Your task to perform on an android device: turn off picture-in-picture Image 0: 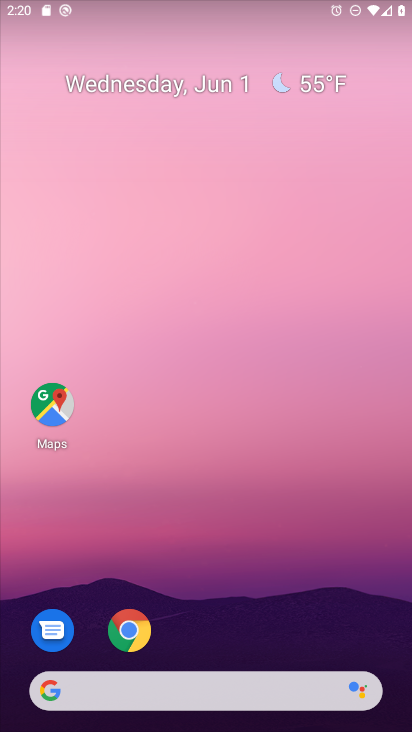
Step 0: drag from (47, 246) to (406, 155)
Your task to perform on an android device: turn off picture-in-picture Image 1: 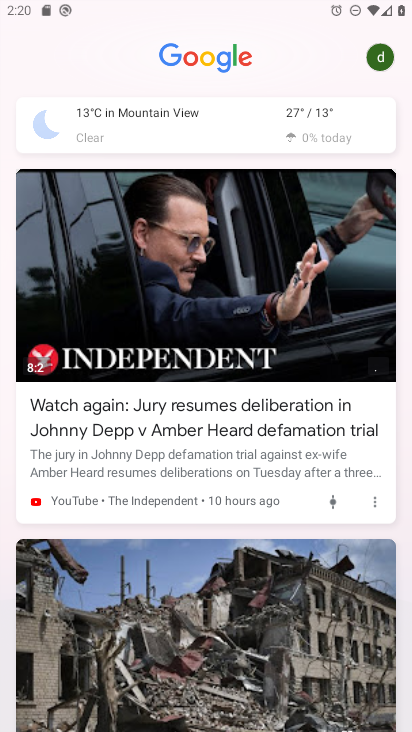
Step 1: press home button
Your task to perform on an android device: turn off picture-in-picture Image 2: 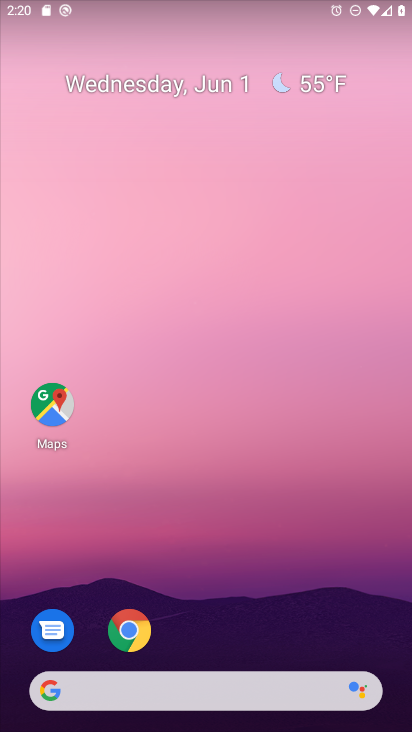
Step 2: drag from (228, 663) to (281, 39)
Your task to perform on an android device: turn off picture-in-picture Image 3: 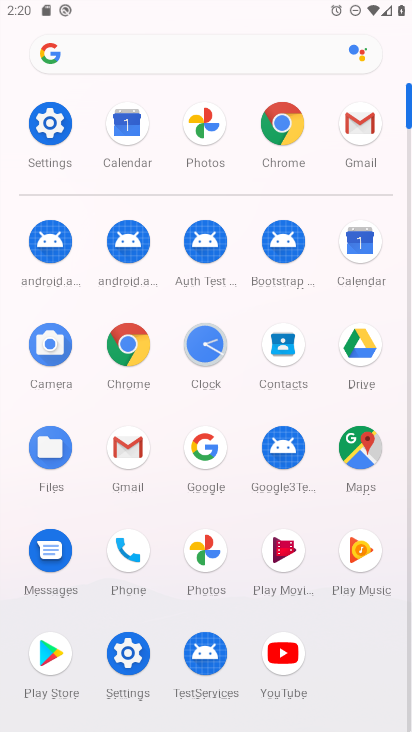
Step 3: click (50, 116)
Your task to perform on an android device: turn off picture-in-picture Image 4: 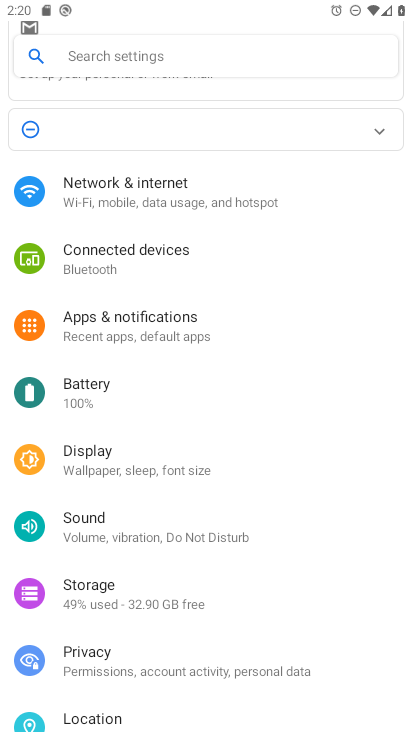
Step 4: drag from (109, 677) to (148, 568)
Your task to perform on an android device: turn off picture-in-picture Image 5: 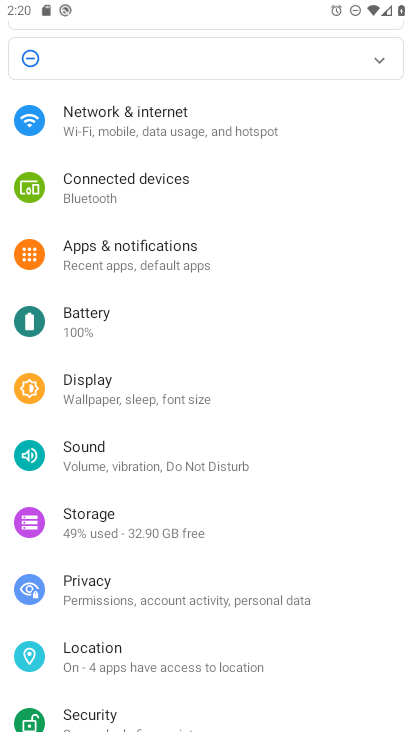
Step 5: click (166, 247)
Your task to perform on an android device: turn off picture-in-picture Image 6: 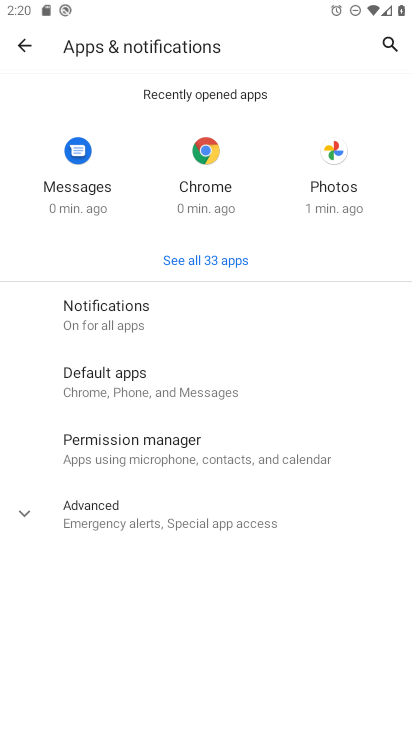
Step 6: click (132, 507)
Your task to perform on an android device: turn off picture-in-picture Image 7: 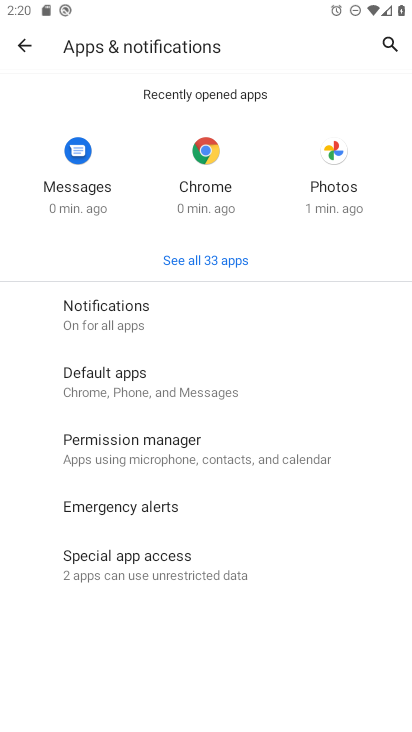
Step 7: click (128, 575)
Your task to perform on an android device: turn off picture-in-picture Image 8: 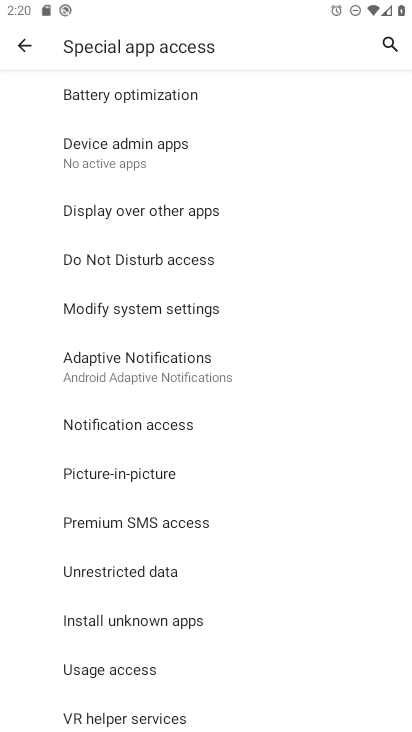
Step 8: click (138, 468)
Your task to perform on an android device: turn off picture-in-picture Image 9: 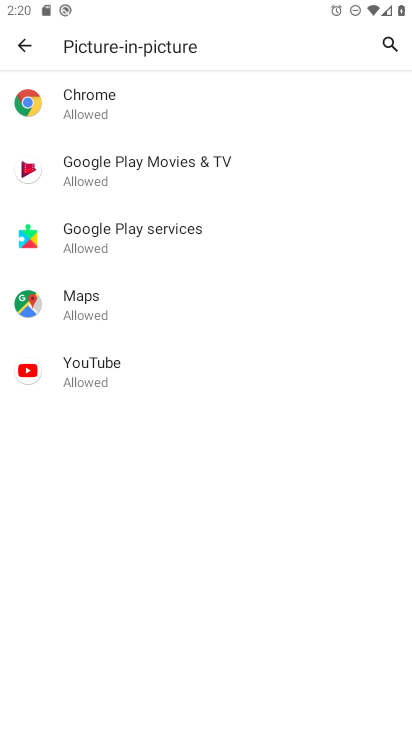
Step 9: click (75, 109)
Your task to perform on an android device: turn off picture-in-picture Image 10: 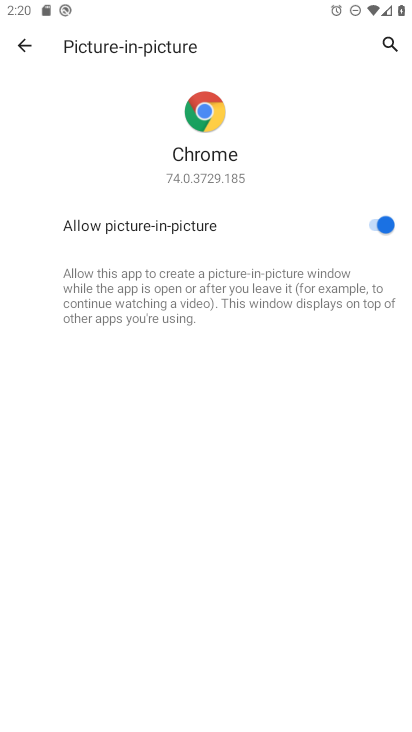
Step 10: click (369, 226)
Your task to perform on an android device: turn off picture-in-picture Image 11: 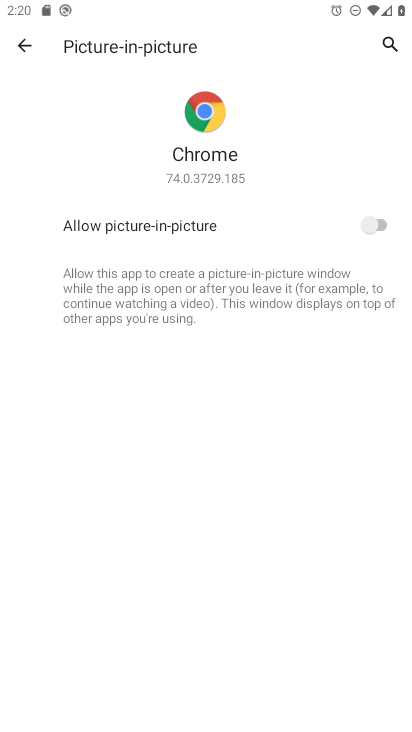
Step 11: press back button
Your task to perform on an android device: turn off picture-in-picture Image 12: 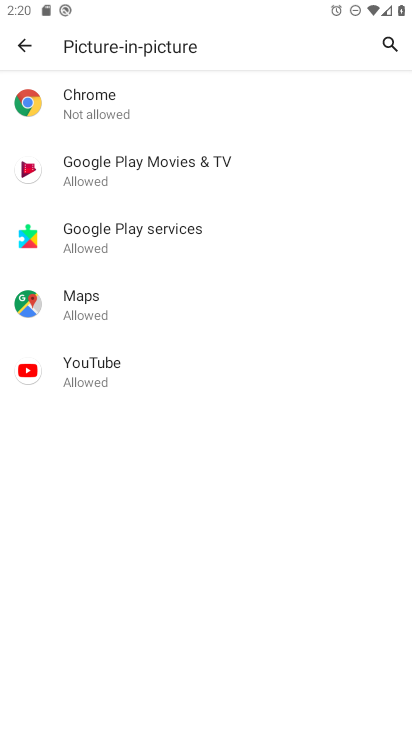
Step 12: click (116, 185)
Your task to perform on an android device: turn off picture-in-picture Image 13: 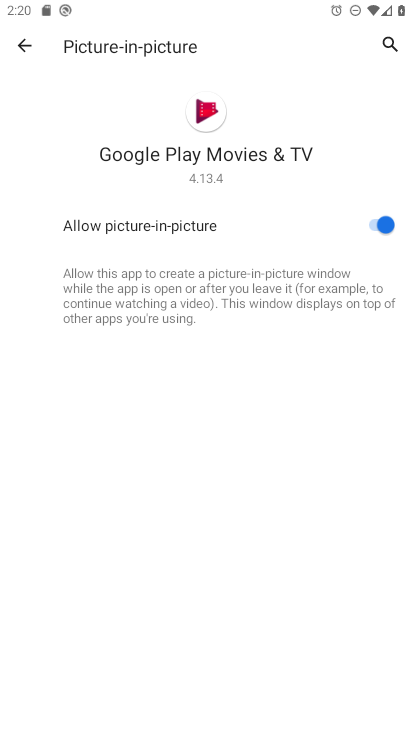
Step 13: click (385, 223)
Your task to perform on an android device: turn off picture-in-picture Image 14: 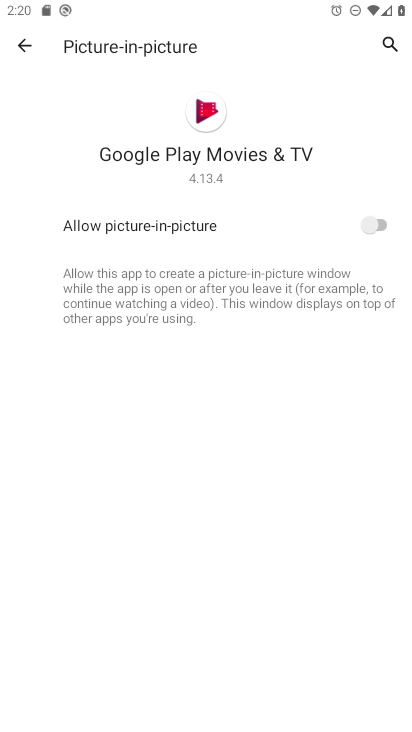
Step 14: press back button
Your task to perform on an android device: turn off picture-in-picture Image 15: 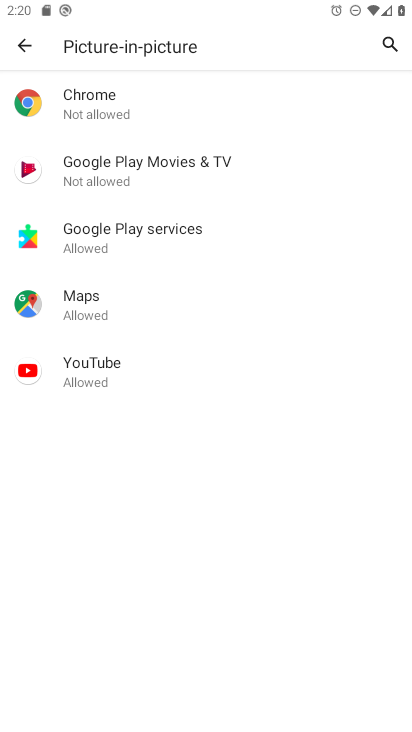
Step 15: click (169, 235)
Your task to perform on an android device: turn off picture-in-picture Image 16: 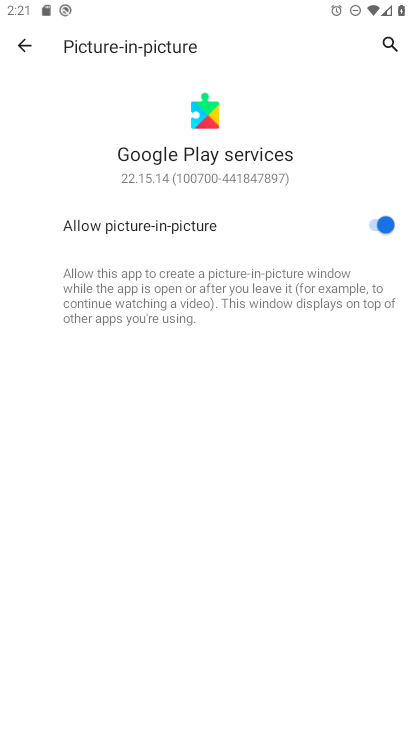
Step 16: click (384, 230)
Your task to perform on an android device: turn off picture-in-picture Image 17: 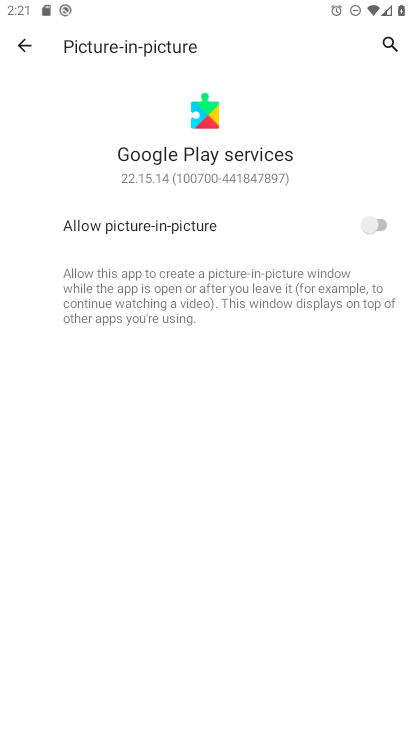
Step 17: press back button
Your task to perform on an android device: turn off picture-in-picture Image 18: 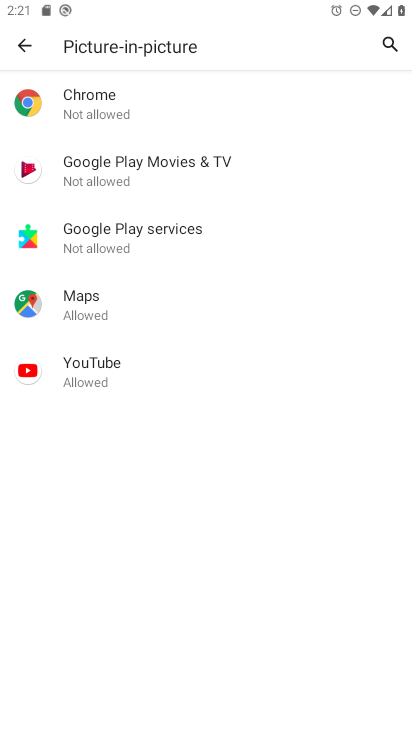
Step 18: click (82, 314)
Your task to perform on an android device: turn off picture-in-picture Image 19: 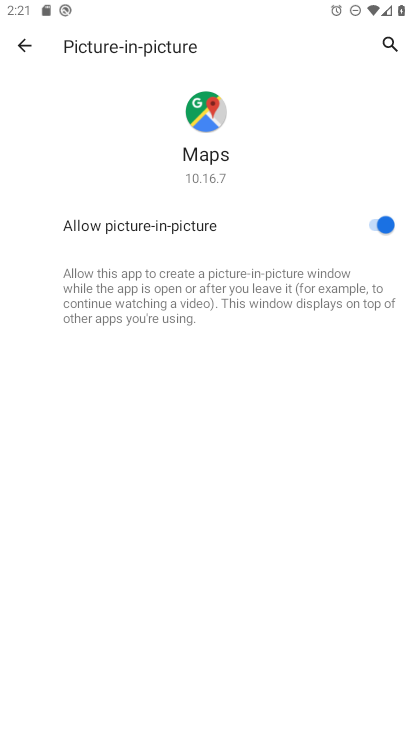
Step 19: click (383, 222)
Your task to perform on an android device: turn off picture-in-picture Image 20: 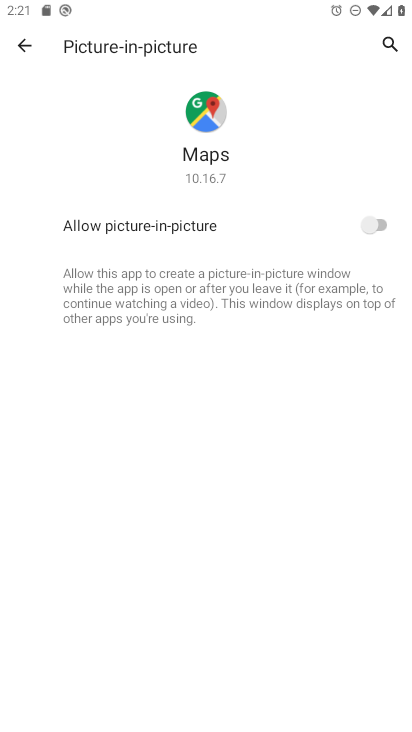
Step 20: press back button
Your task to perform on an android device: turn off picture-in-picture Image 21: 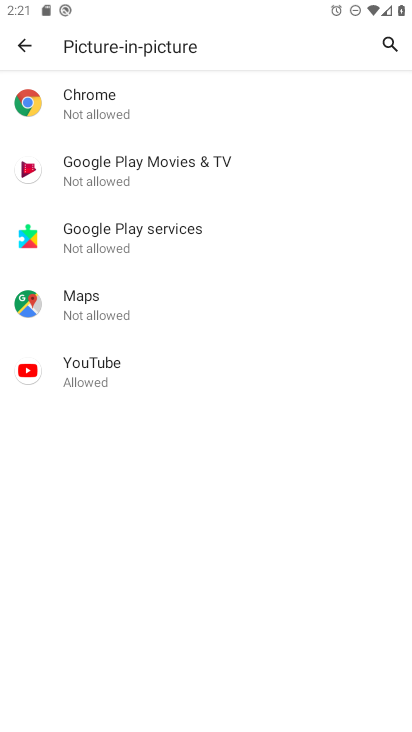
Step 21: click (139, 369)
Your task to perform on an android device: turn off picture-in-picture Image 22: 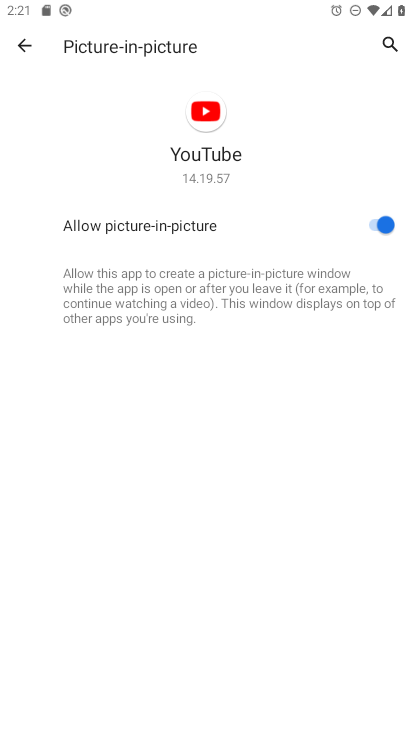
Step 22: click (370, 229)
Your task to perform on an android device: turn off picture-in-picture Image 23: 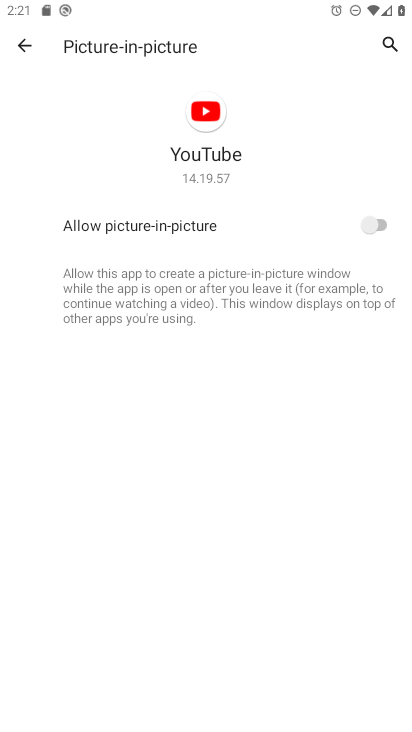
Step 23: task complete